Your task to perform on an android device: empty trash in the gmail app Image 0: 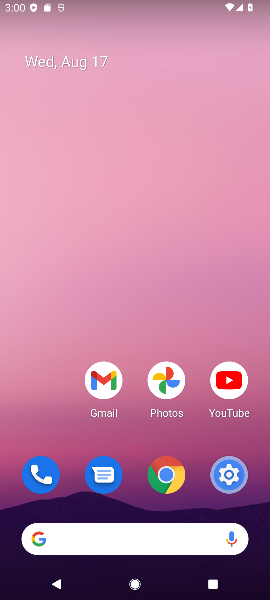
Step 0: drag from (141, 513) to (124, 60)
Your task to perform on an android device: empty trash in the gmail app Image 1: 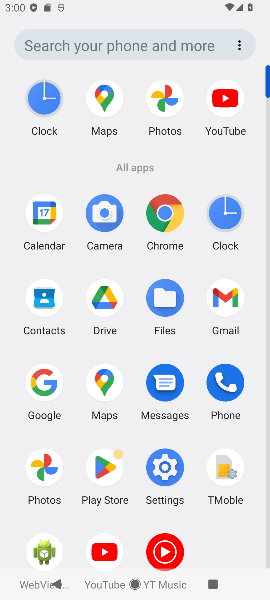
Step 1: click (227, 285)
Your task to perform on an android device: empty trash in the gmail app Image 2: 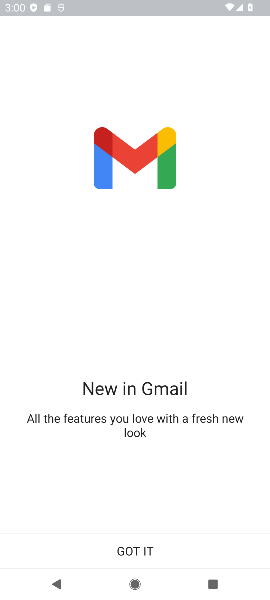
Step 2: click (132, 544)
Your task to perform on an android device: empty trash in the gmail app Image 3: 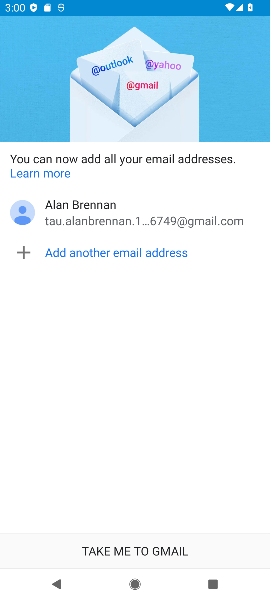
Step 3: click (132, 544)
Your task to perform on an android device: empty trash in the gmail app Image 4: 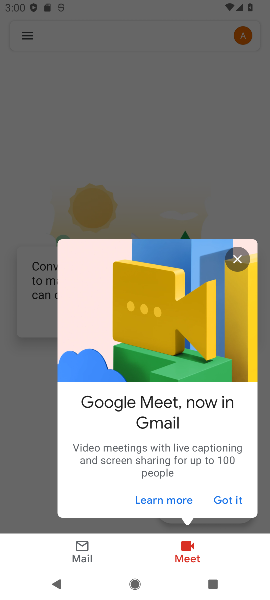
Step 4: click (229, 501)
Your task to perform on an android device: empty trash in the gmail app Image 5: 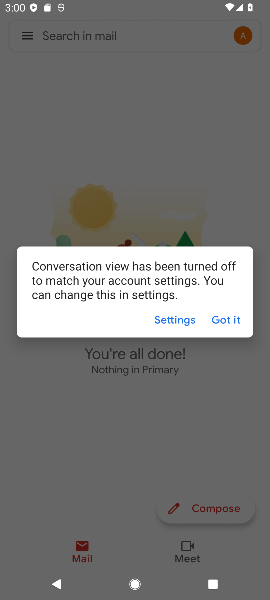
Step 5: click (235, 314)
Your task to perform on an android device: empty trash in the gmail app Image 6: 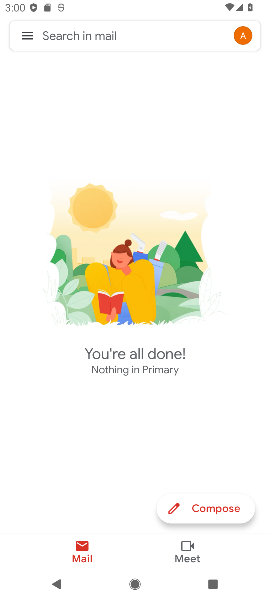
Step 6: task complete